Your task to perform on an android device: How do I get to the nearest IKEA? Image 0: 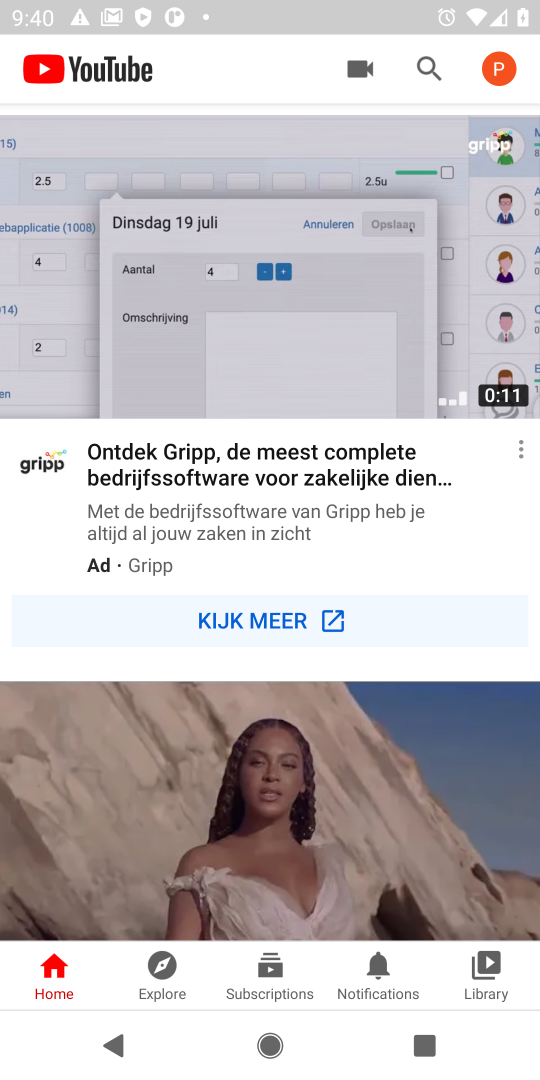
Step 0: press home button
Your task to perform on an android device: How do I get to the nearest IKEA? Image 1: 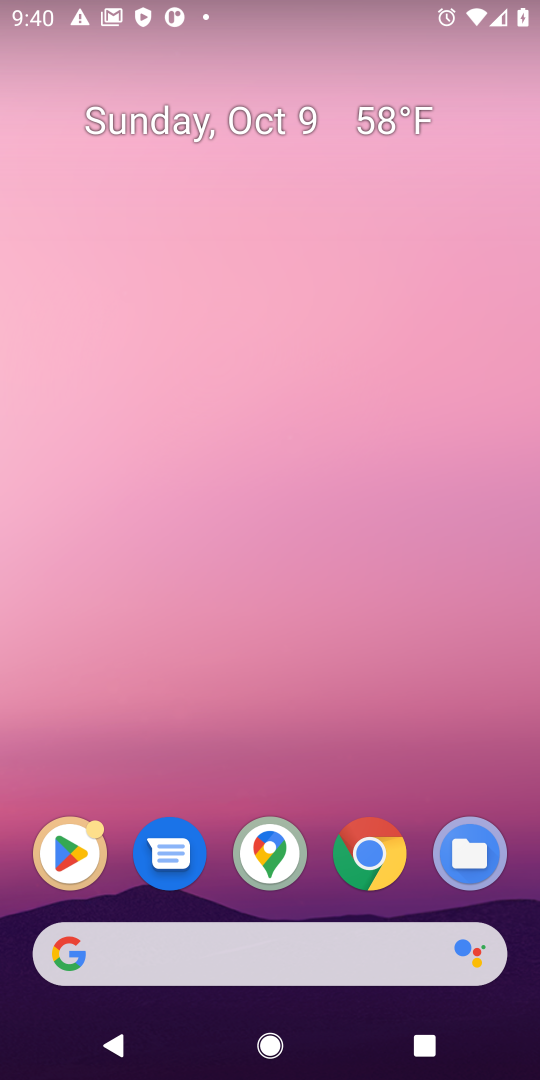
Step 1: click (386, 874)
Your task to perform on an android device: How do I get to the nearest IKEA? Image 2: 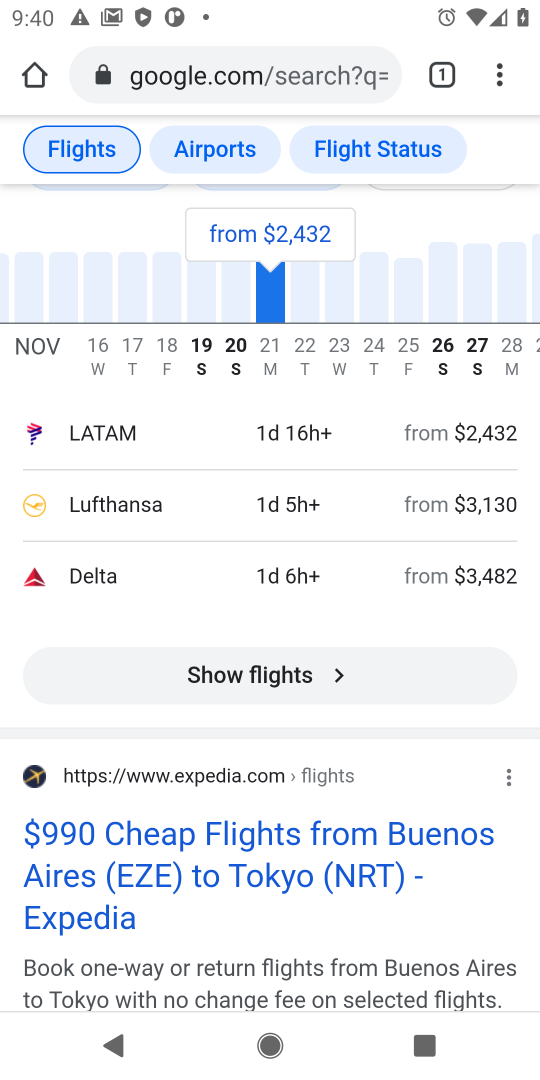
Step 2: click (240, 75)
Your task to perform on an android device: How do I get to the nearest IKEA? Image 3: 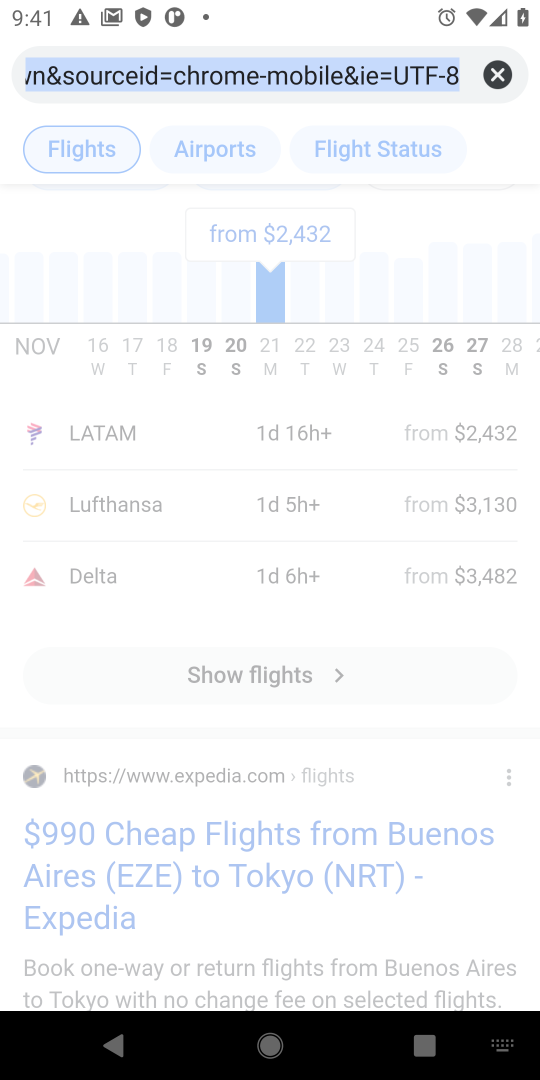
Step 3: type "directions to nearest ikea"
Your task to perform on an android device: How do I get to the nearest IKEA? Image 4: 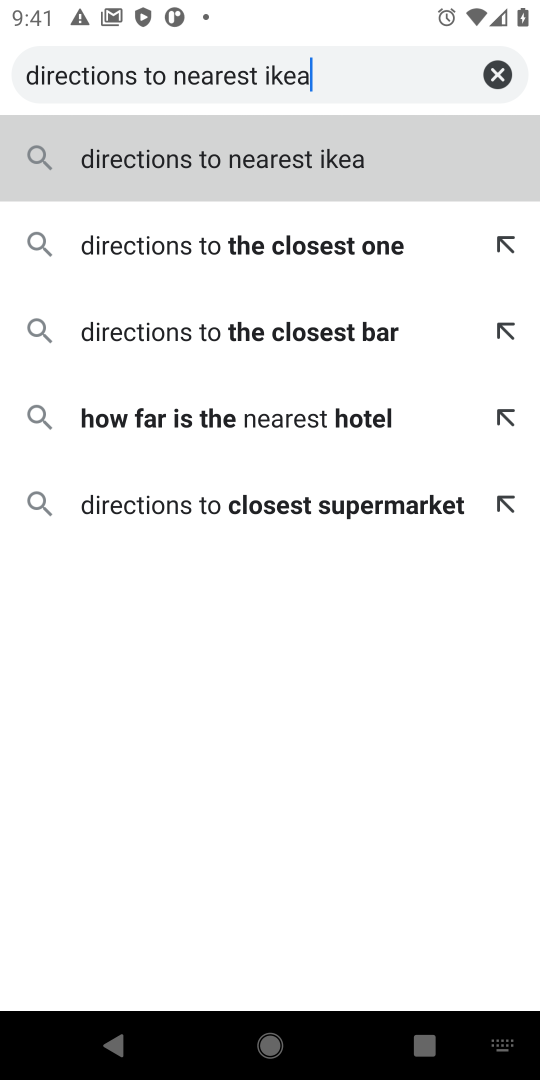
Step 4: click (244, 149)
Your task to perform on an android device: How do I get to the nearest IKEA? Image 5: 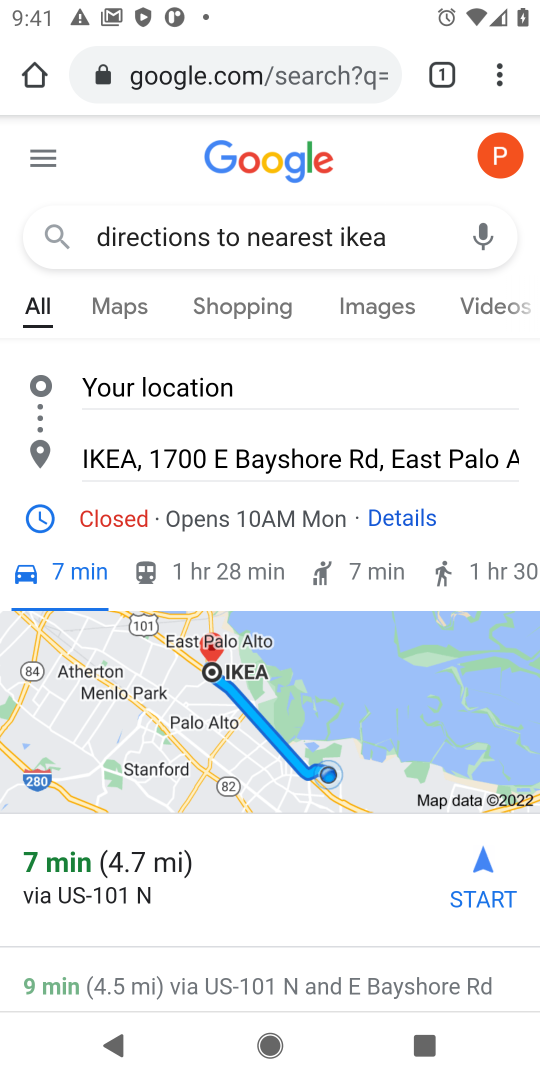
Step 5: drag from (464, 654) to (404, 470)
Your task to perform on an android device: How do I get to the nearest IKEA? Image 6: 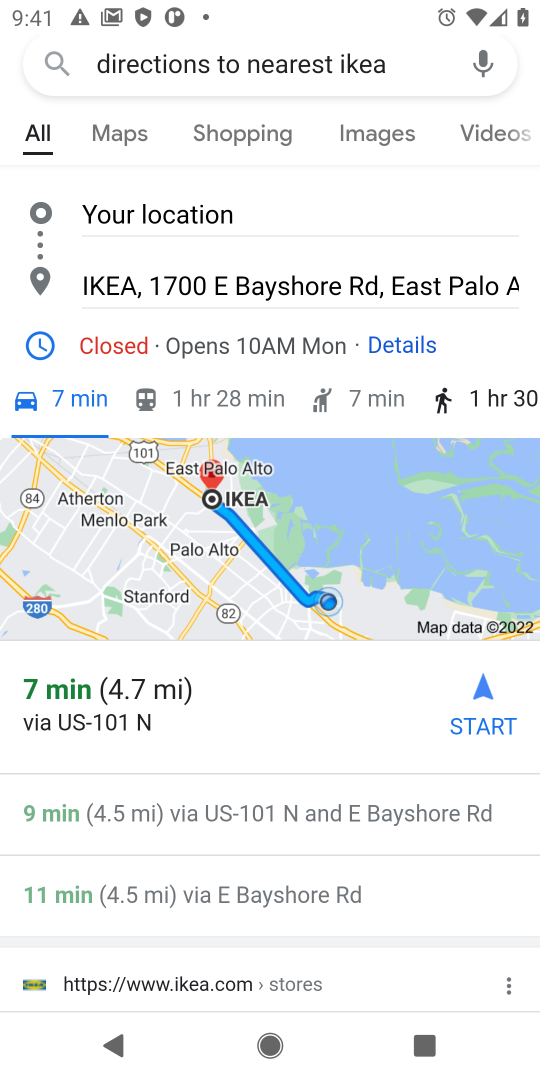
Step 6: click (485, 691)
Your task to perform on an android device: How do I get to the nearest IKEA? Image 7: 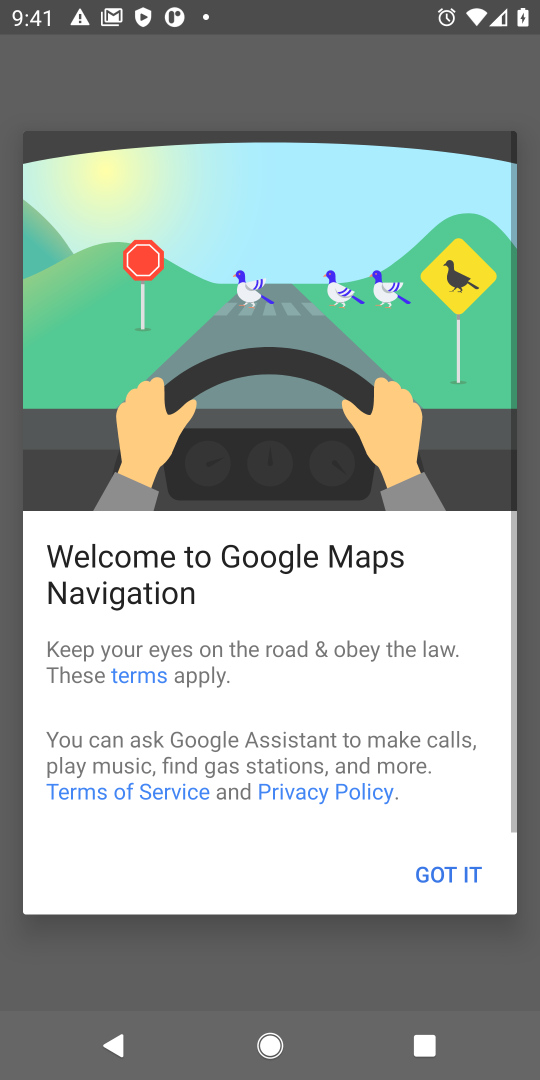
Step 7: click (466, 852)
Your task to perform on an android device: How do I get to the nearest IKEA? Image 8: 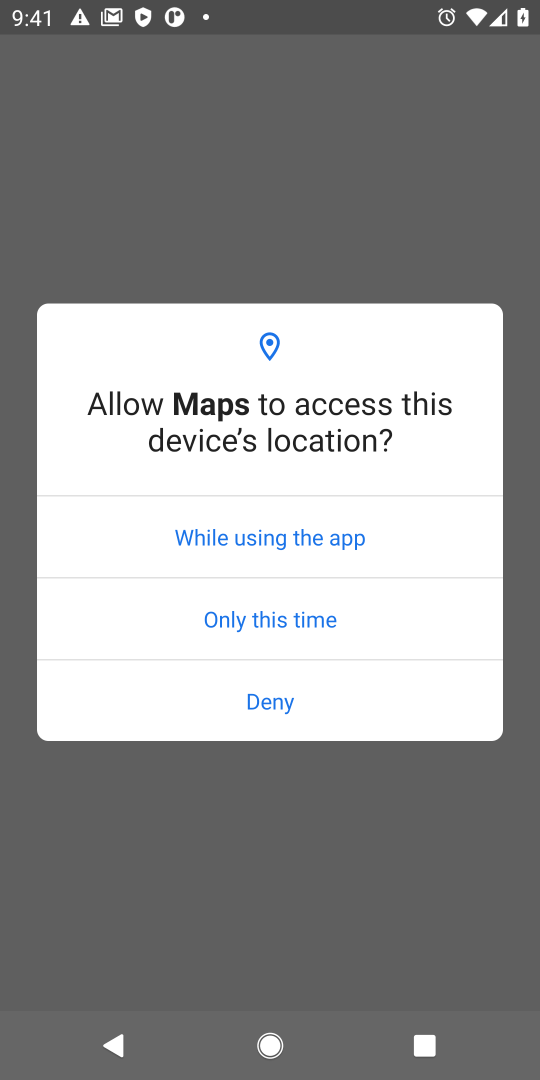
Step 8: click (303, 541)
Your task to perform on an android device: How do I get to the nearest IKEA? Image 9: 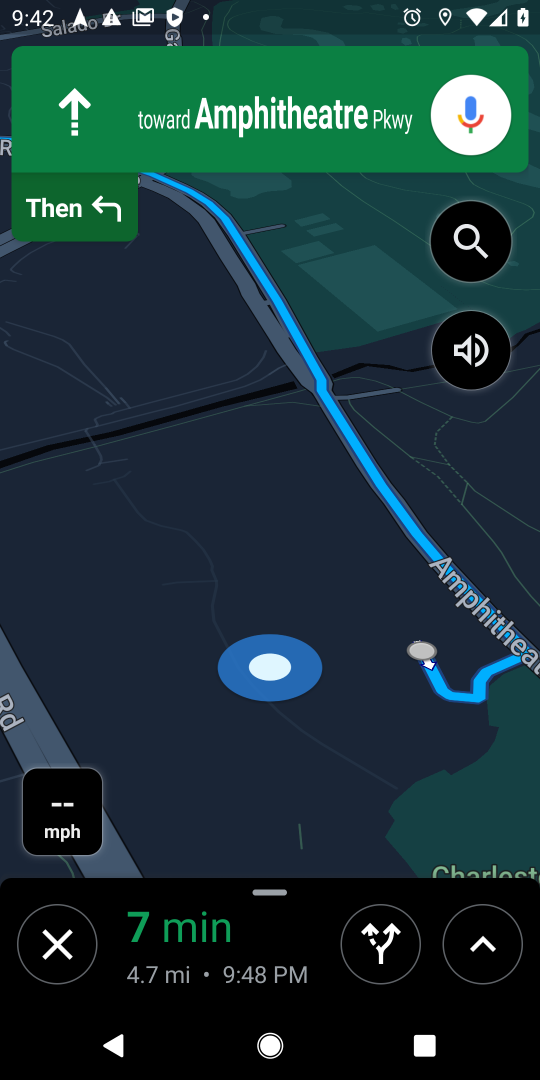
Step 9: task complete